Your task to perform on an android device: Check the news Image 0: 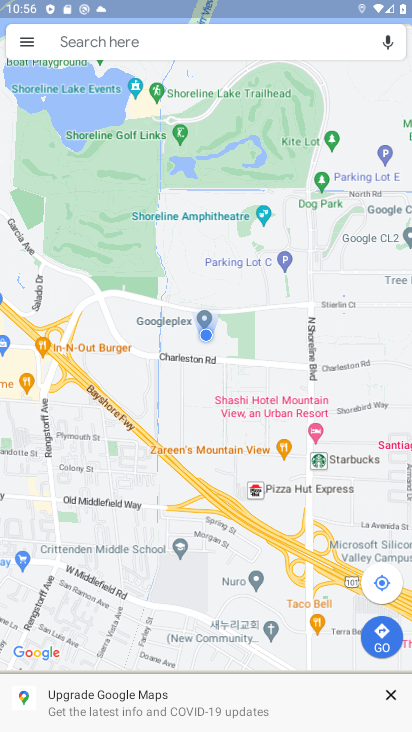
Step 0: press back button
Your task to perform on an android device: Check the news Image 1: 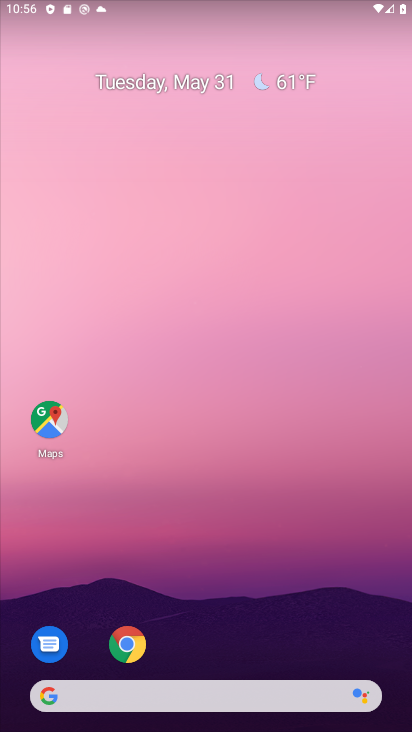
Step 1: click (159, 694)
Your task to perform on an android device: Check the news Image 2: 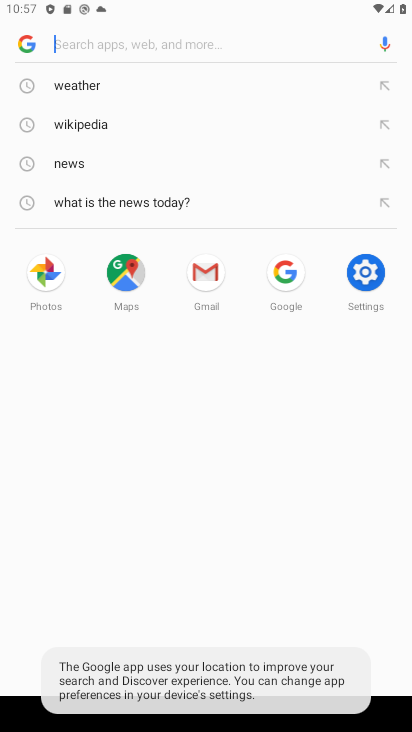
Step 2: click (86, 162)
Your task to perform on an android device: Check the news Image 3: 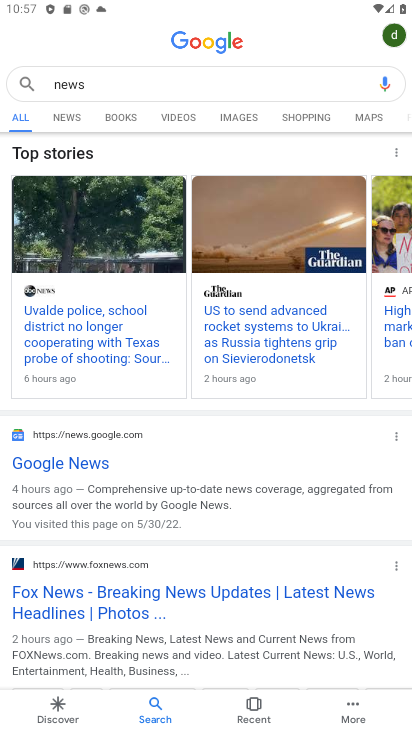
Step 3: task complete